Your task to perform on an android device: Open calendar and show me the fourth week of next month Image 0: 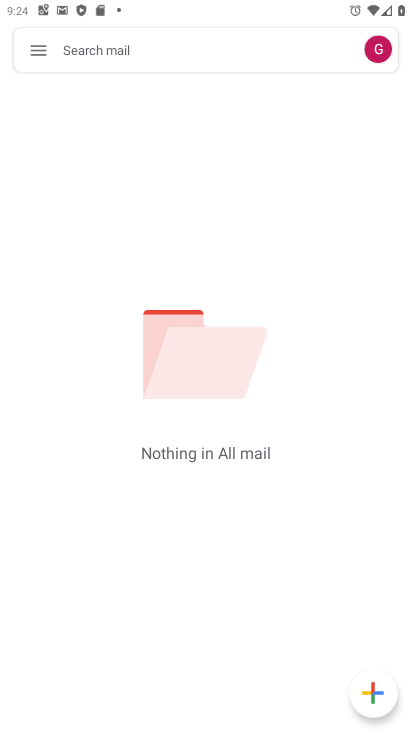
Step 0: press home button
Your task to perform on an android device: Open calendar and show me the fourth week of next month Image 1: 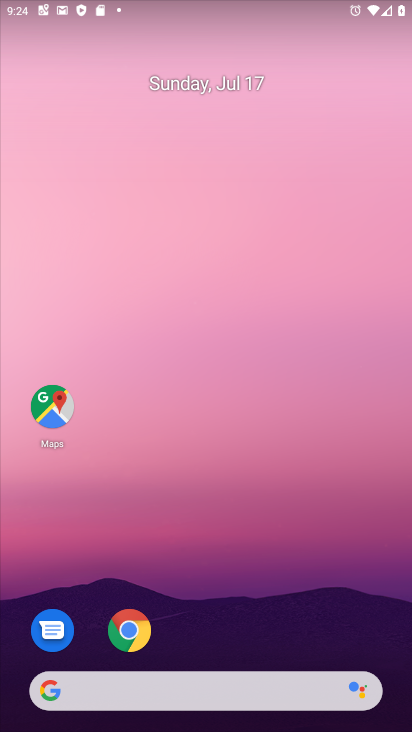
Step 1: drag from (369, 596) to (386, 88)
Your task to perform on an android device: Open calendar and show me the fourth week of next month Image 2: 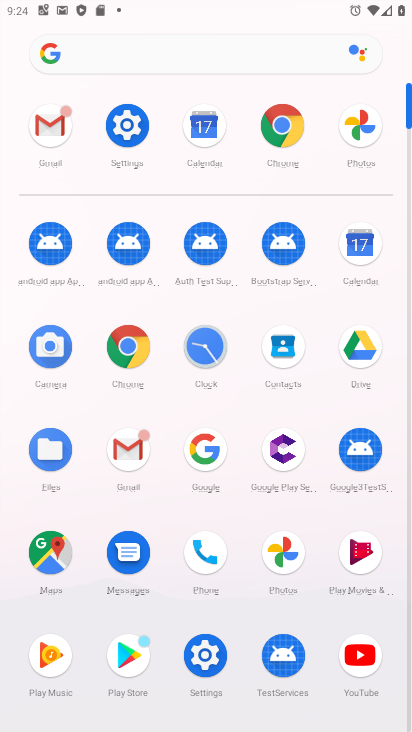
Step 2: click (363, 247)
Your task to perform on an android device: Open calendar and show me the fourth week of next month Image 3: 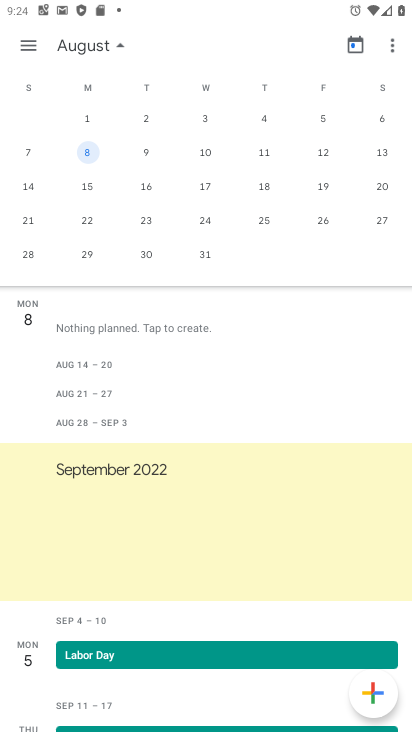
Step 3: click (87, 220)
Your task to perform on an android device: Open calendar and show me the fourth week of next month Image 4: 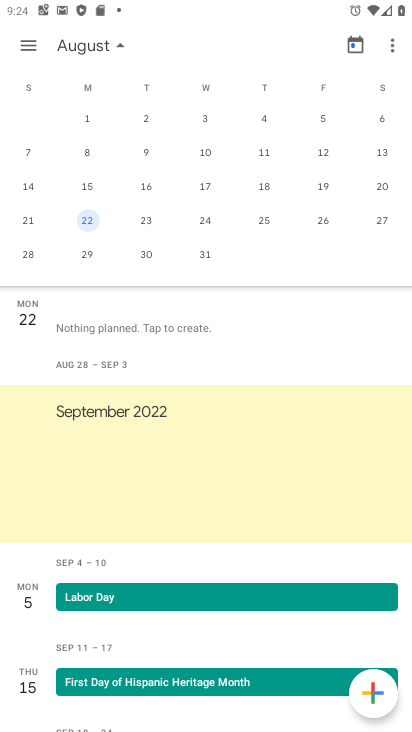
Step 4: task complete